Your task to perform on an android device: toggle pop-ups in chrome Image 0: 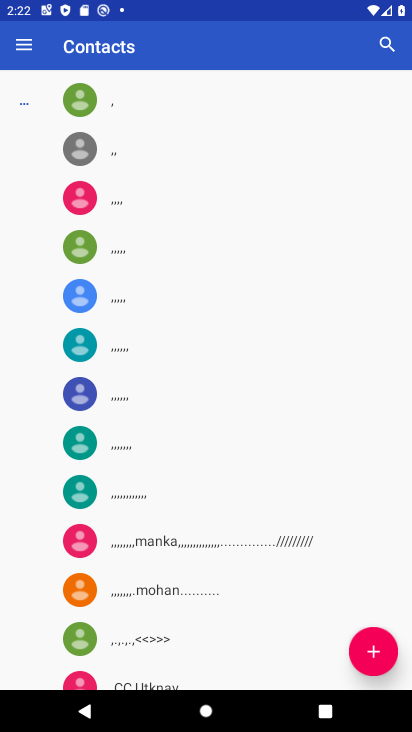
Step 0: press home button
Your task to perform on an android device: toggle pop-ups in chrome Image 1: 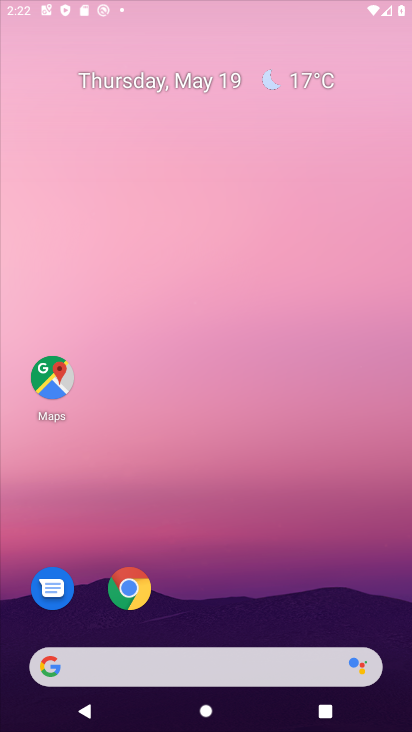
Step 1: drag from (298, 527) to (190, 124)
Your task to perform on an android device: toggle pop-ups in chrome Image 2: 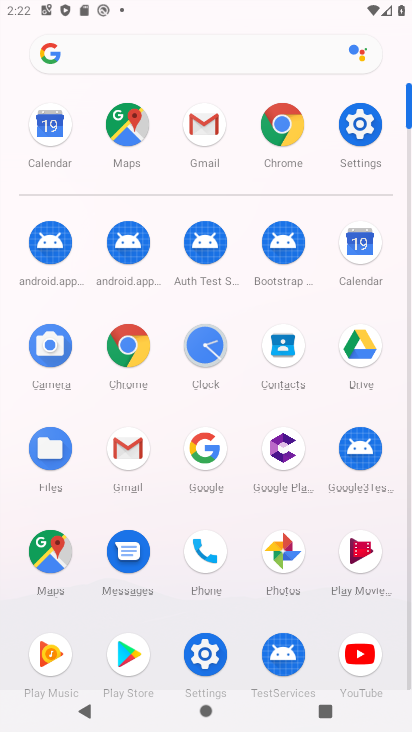
Step 2: click (287, 117)
Your task to perform on an android device: toggle pop-ups in chrome Image 3: 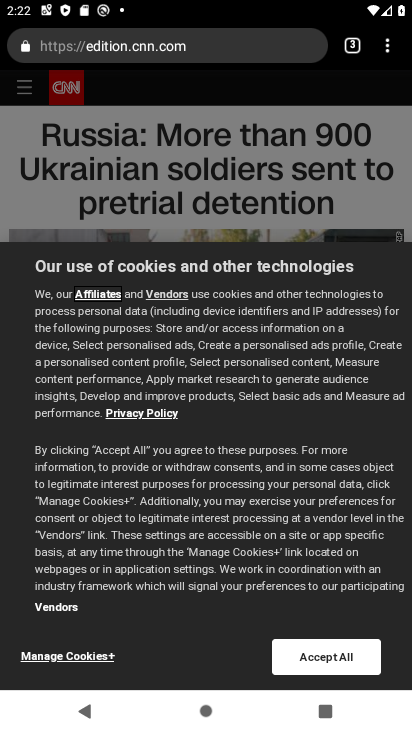
Step 3: drag from (392, 49) to (242, 515)
Your task to perform on an android device: toggle pop-ups in chrome Image 4: 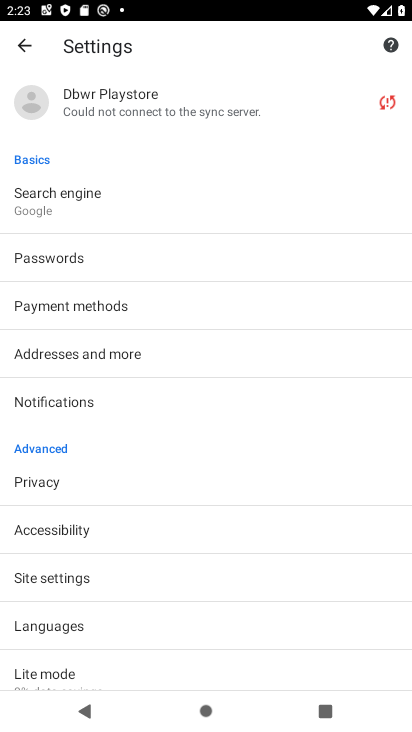
Step 4: click (185, 199)
Your task to perform on an android device: toggle pop-ups in chrome Image 5: 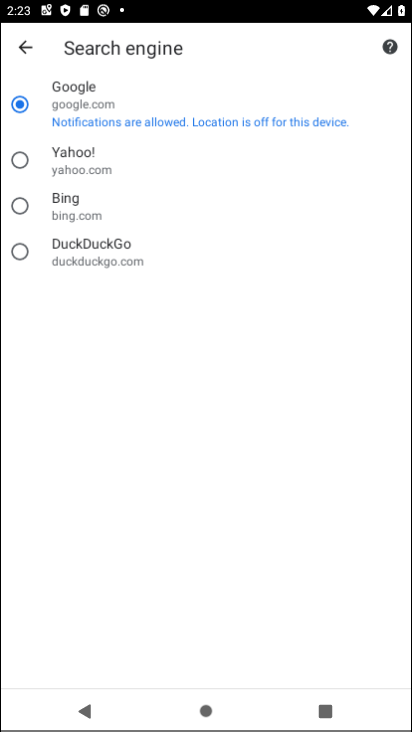
Step 5: click (67, 564)
Your task to perform on an android device: toggle pop-ups in chrome Image 6: 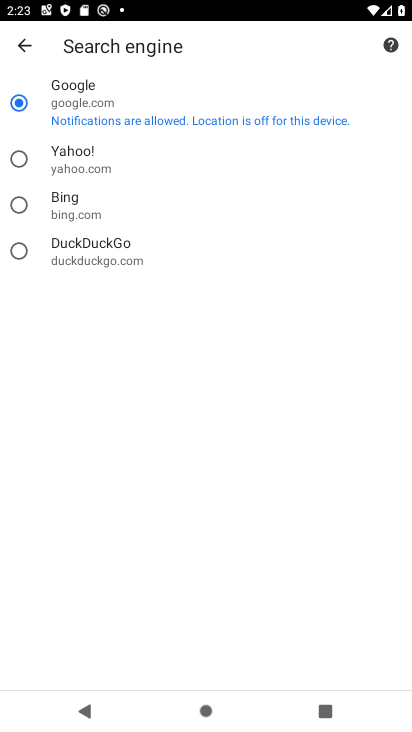
Step 6: click (12, 43)
Your task to perform on an android device: toggle pop-ups in chrome Image 7: 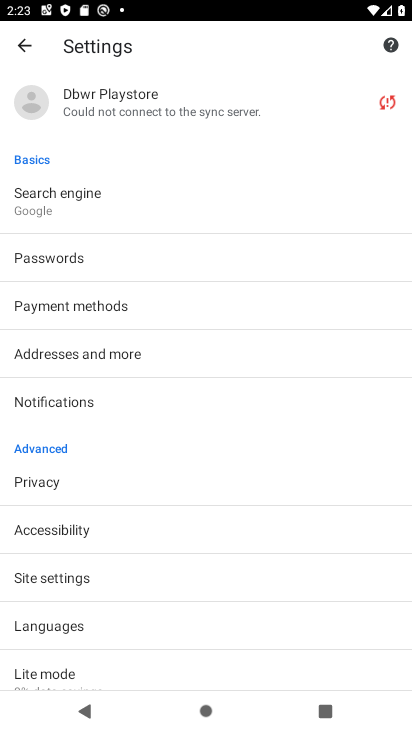
Step 7: click (123, 586)
Your task to perform on an android device: toggle pop-ups in chrome Image 8: 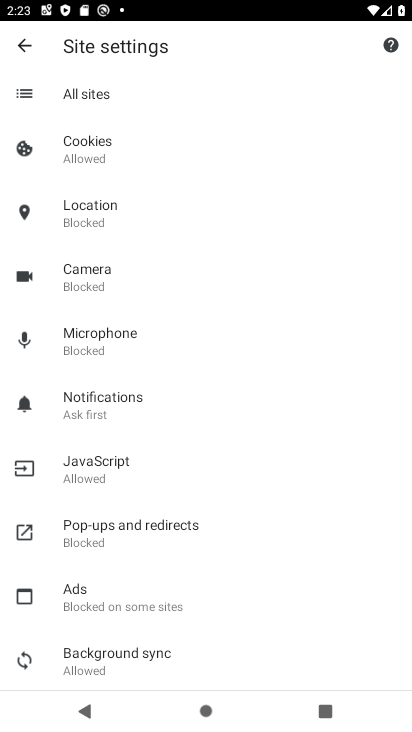
Step 8: click (143, 533)
Your task to perform on an android device: toggle pop-ups in chrome Image 9: 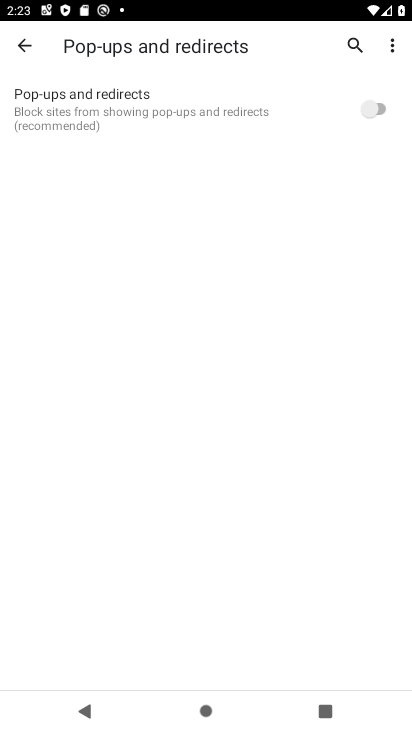
Step 9: click (377, 104)
Your task to perform on an android device: toggle pop-ups in chrome Image 10: 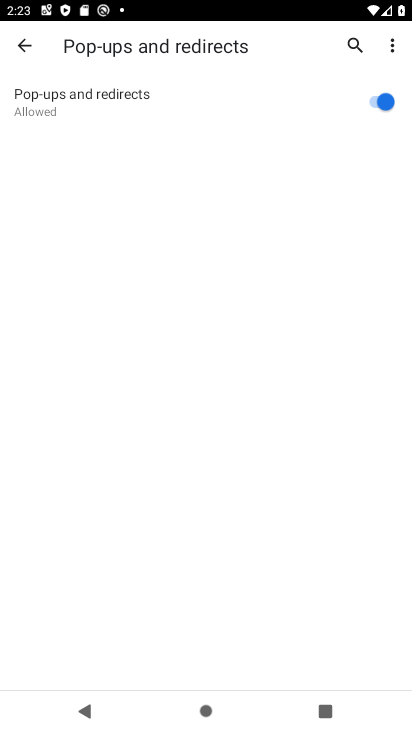
Step 10: task complete